Your task to perform on an android device: turn on the 12-hour format for clock Image 0: 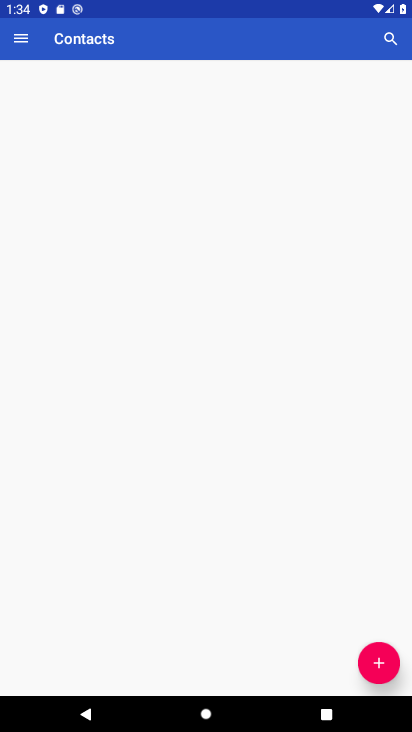
Step 0: press home button
Your task to perform on an android device: turn on the 12-hour format for clock Image 1: 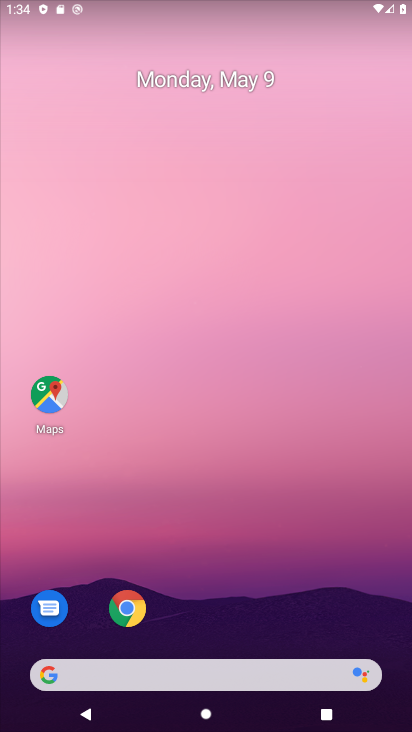
Step 1: drag from (257, 566) to (290, 192)
Your task to perform on an android device: turn on the 12-hour format for clock Image 2: 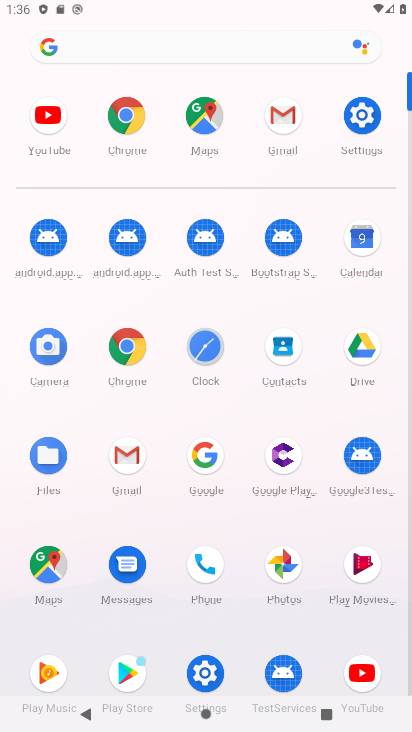
Step 2: click (187, 380)
Your task to perform on an android device: turn on the 12-hour format for clock Image 3: 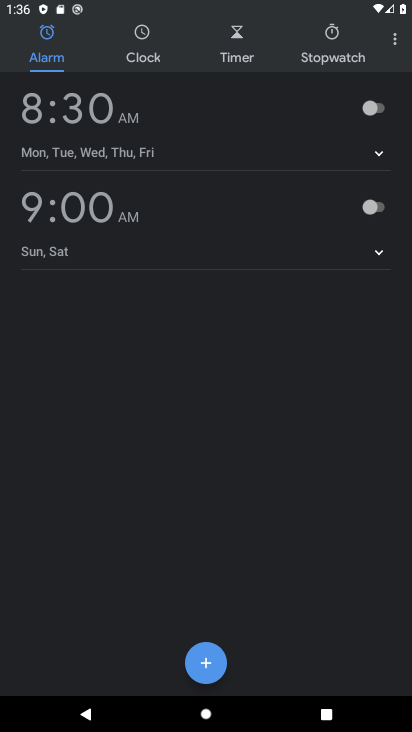
Step 3: click (315, 58)
Your task to perform on an android device: turn on the 12-hour format for clock Image 4: 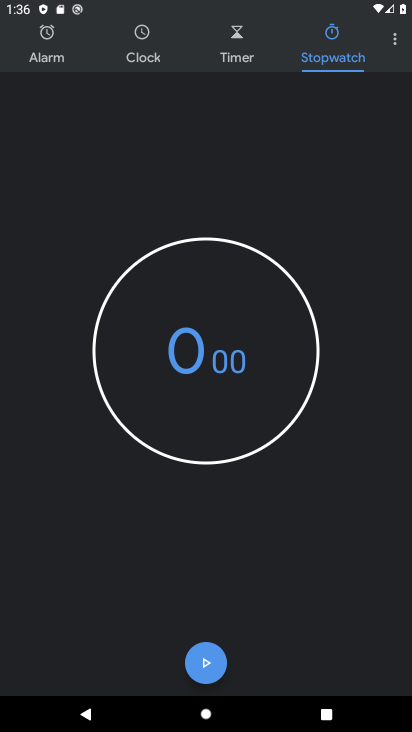
Step 4: click (232, 45)
Your task to perform on an android device: turn on the 12-hour format for clock Image 5: 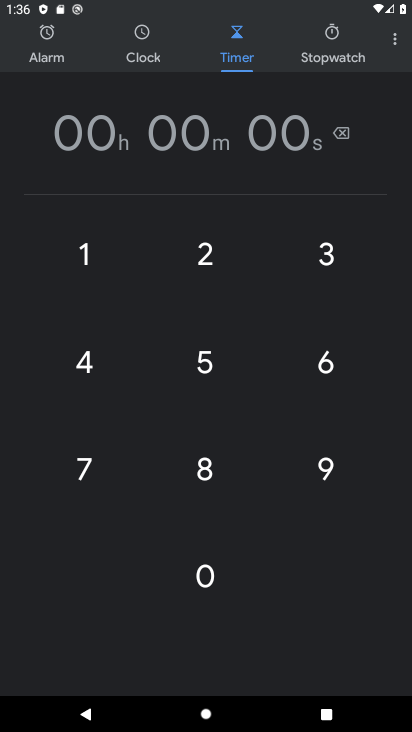
Step 5: click (55, 54)
Your task to perform on an android device: turn on the 12-hour format for clock Image 6: 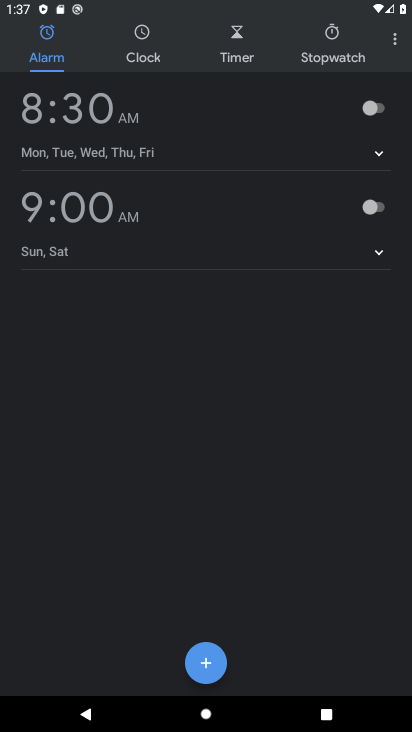
Step 6: click (400, 36)
Your task to perform on an android device: turn on the 12-hour format for clock Image 7: 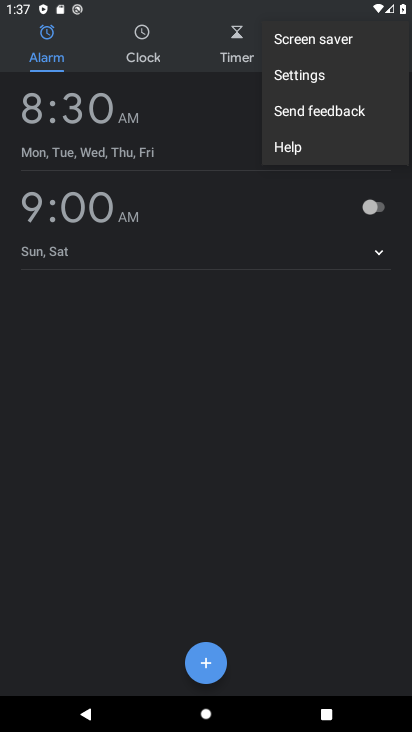
Step 7: click (317, 84)
Your task to perform on an android device: turn on the 12-hour format for clock Image 8: 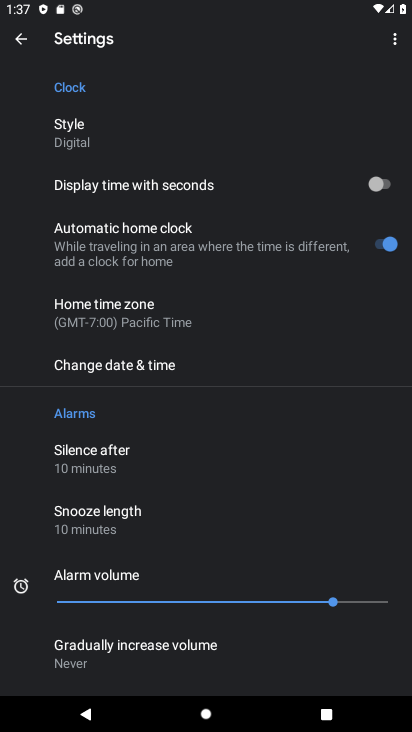
Step 8: drag from (212, 661) to (276, 352)
Your task to perform on an android device: turn on the 12-hour format for clock Image 9: 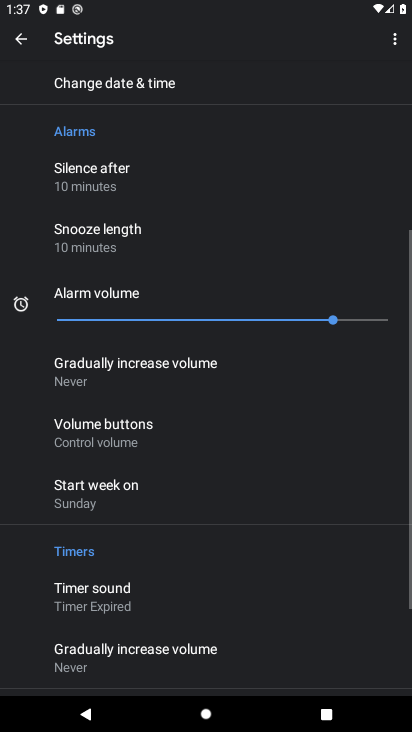
Step 9: drag from (277, 568) to (315, 414)
Your task to perform on an android device: turn on the 12-hour format for clock Image 10: 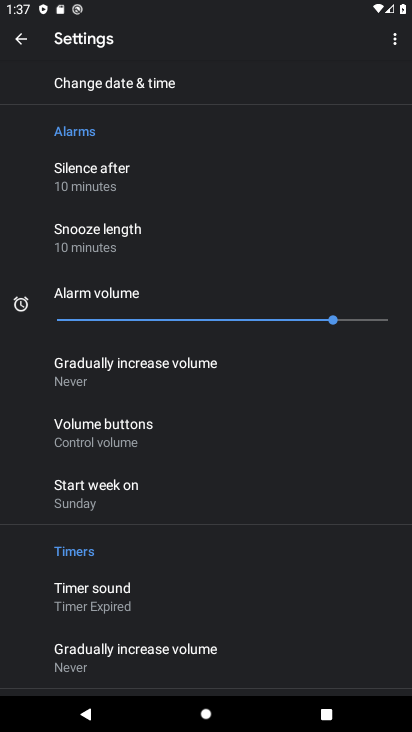
Step 10: drag from (64, 625) to (143, 426)
Your task to perform on an android device: turn on the 12-hour format for clock Image 11: 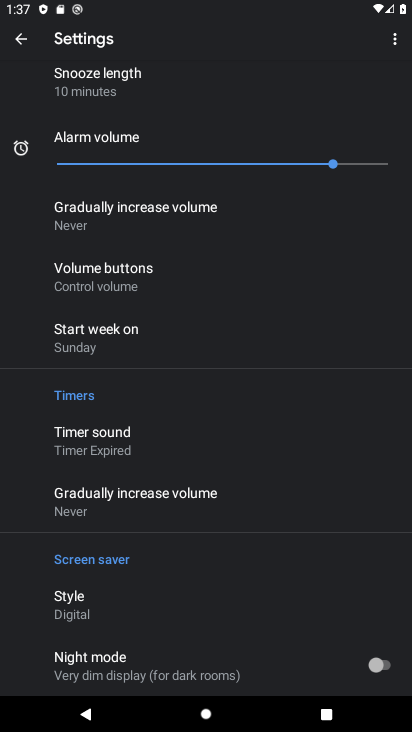
Step 11: drag from (193, 141) to (113, 493)
Your task to perform on an android device: turn on the 12-hour format for clock Image 12: 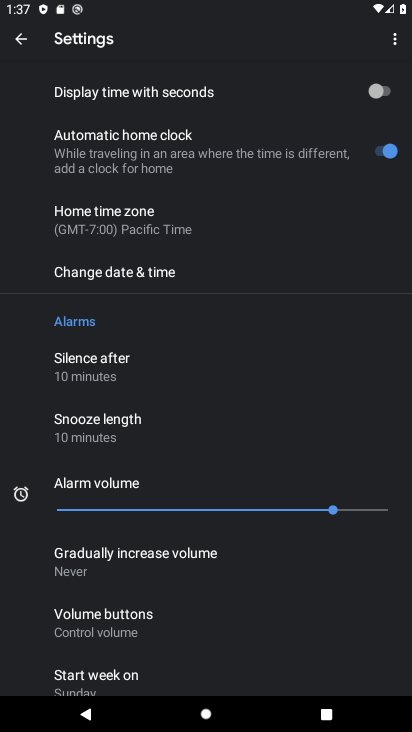
Step 12: click (161, 268)
Your task to perform on an android device: turn on the 12-hour format for clock Image 13: 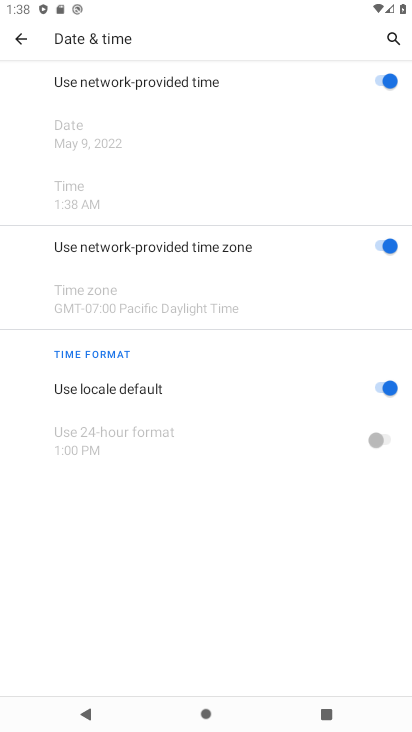
Step 13: click (241, 392)
Your task to perform on an android device: turn on the 12-hour format for clock Image 14: 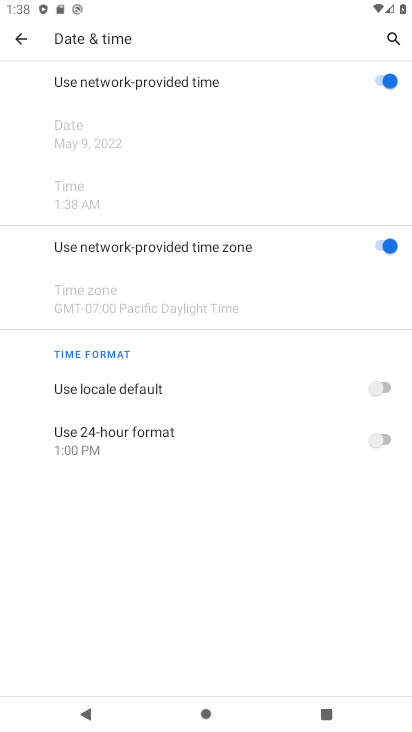
Step 14: click (346, 447)
Your task to perform on an android device: turn on the 12-hour format for clock Image 15: 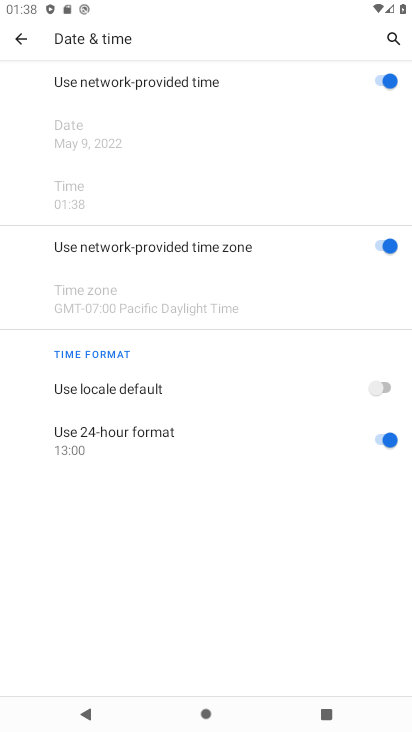
Step 15: task complete